Your task to perform on an android device: turn off priority inbox in the gmail app Image 0: 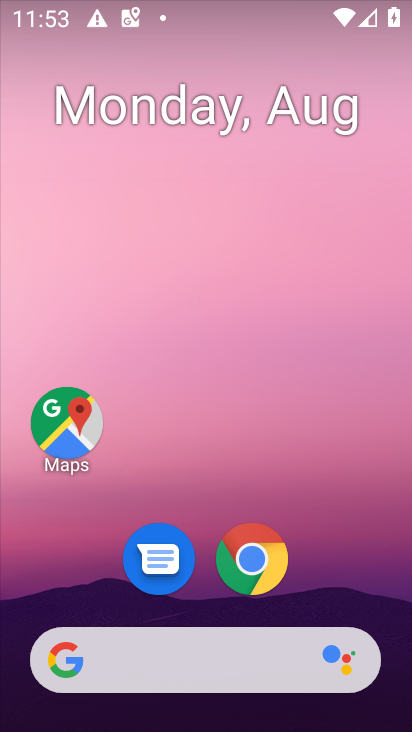
Step 0: drag from (196, 614) to (276, 14)
Your task to perform on an android device: turn off priority inbox in the gmail app Image 1: 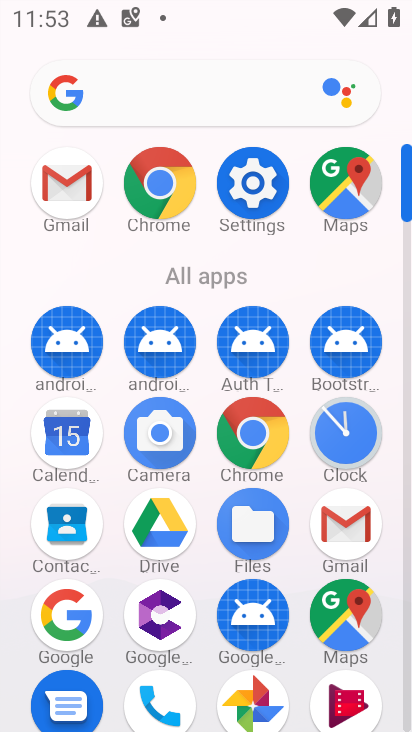
Step 1: click (348, 524)
Your task to perform on an android device: turn off priority inbox in the gmail app Image 2: 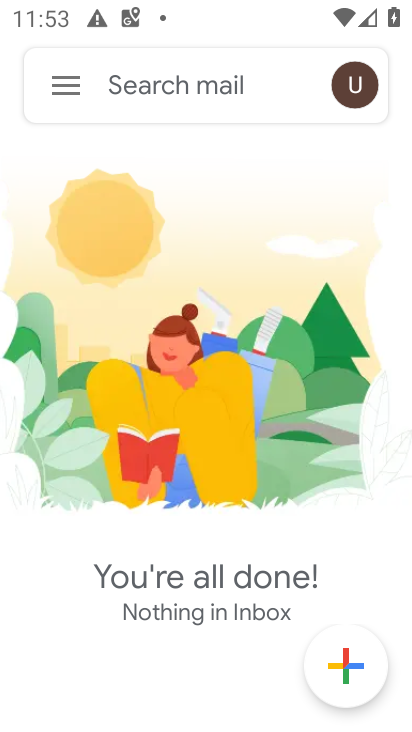
Step 2: click (58, 91)
Your task to perform on an android device: turn off priority inbox in the gmail app Image 3: 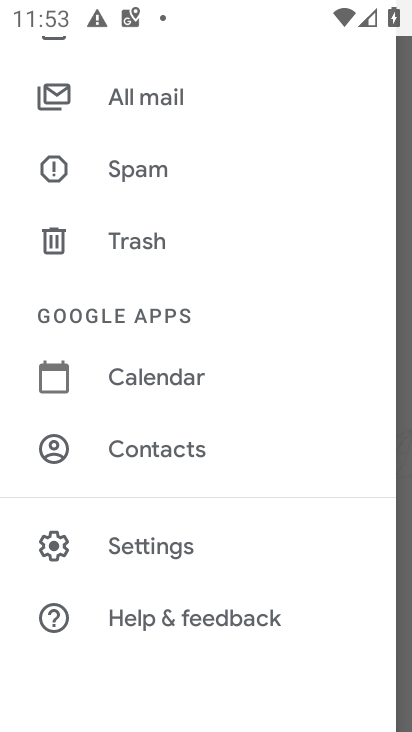
Step 3: click (126, 543)
Your task to perform on an android device: turn off priority inbox in the gmail app Image 4: 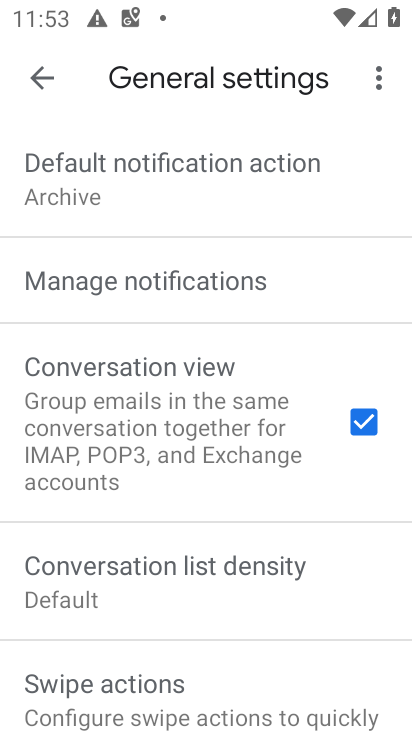
Step 4: click (49, 74)
Your task to perform on an android device: turn off priority inbox in the gmail app Image 5: 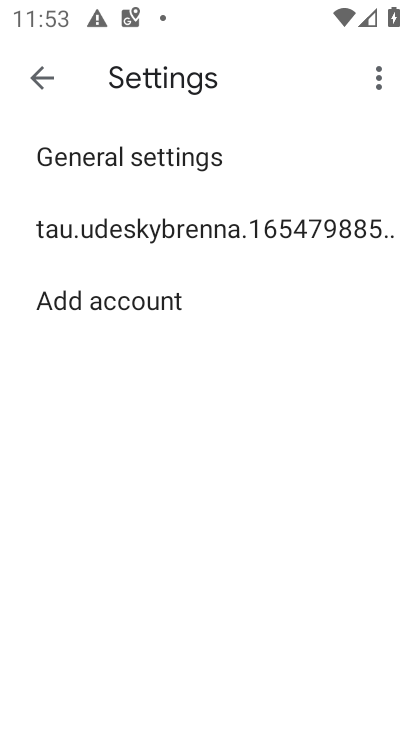
Step 5: click (204, 233)
Your task to perform on an android device: turn off priority inbox in the gmail app Image 6: 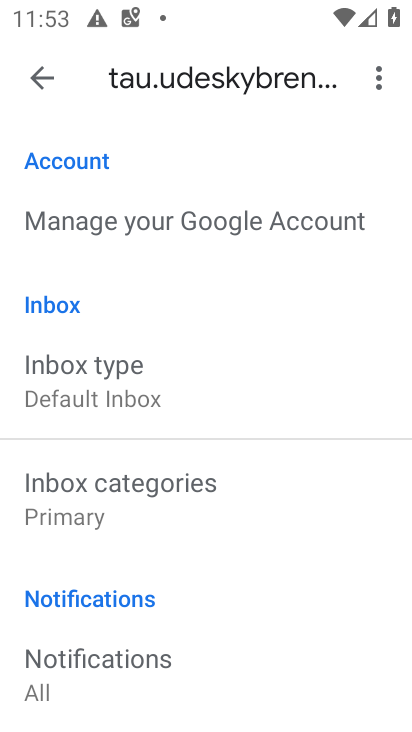
Step 6: click (131, 403)
Your task to perform on an android device: turn off priority inbox in the gmail app Image 7: 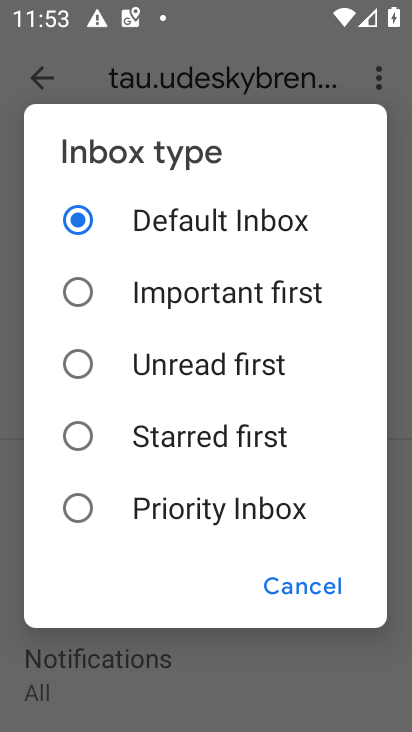
Step 7: click (128, 517)
Your task to perform on an android device: turn off priority inbox in the gmail app Image 8: 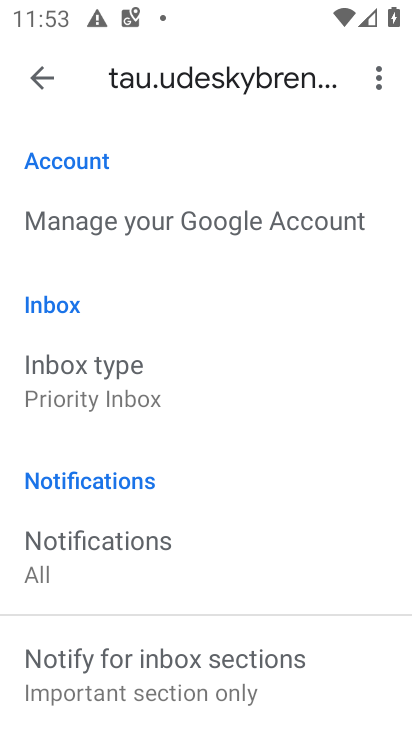
Step 8: task complete